Your task to perform on an android device: toggle location history Image 0: 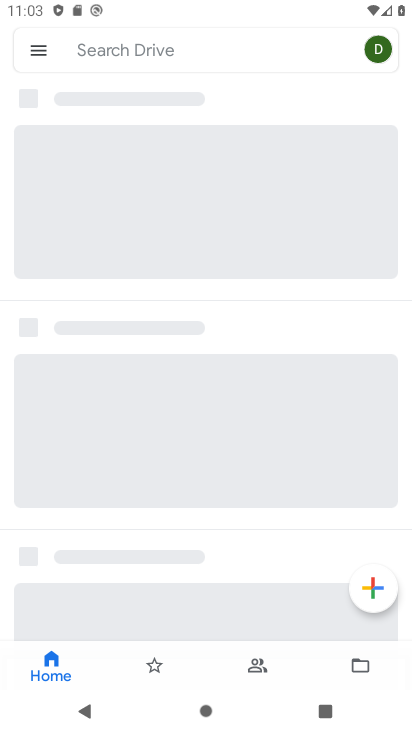
Step 0: press home button
Your task to perform on an android device: toggle location history Image 1: 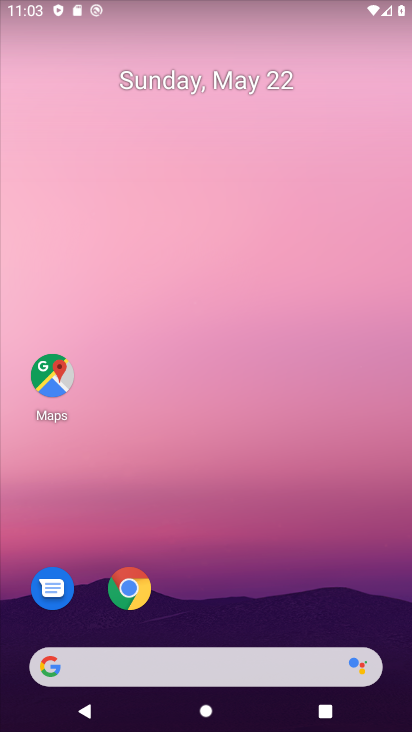
Step 1: drag from (191, 635) to (251, 210)
Your task to perform on an android device: toggle location history Image 2: 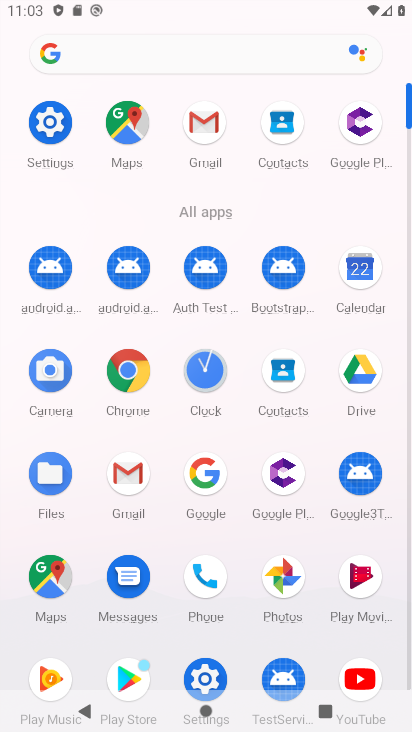
Step 2: click (40, 124)
Your task to perform on an android device: toggle location history Image 3: 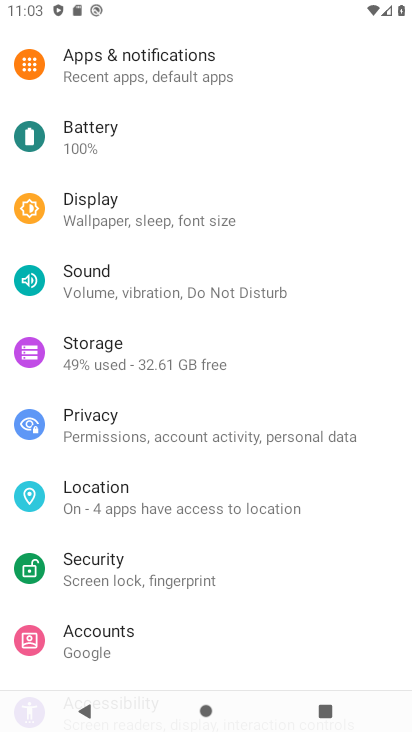
Step 3: click (150, 497)
Your task to perform on an android device: toggle location history Image 4: 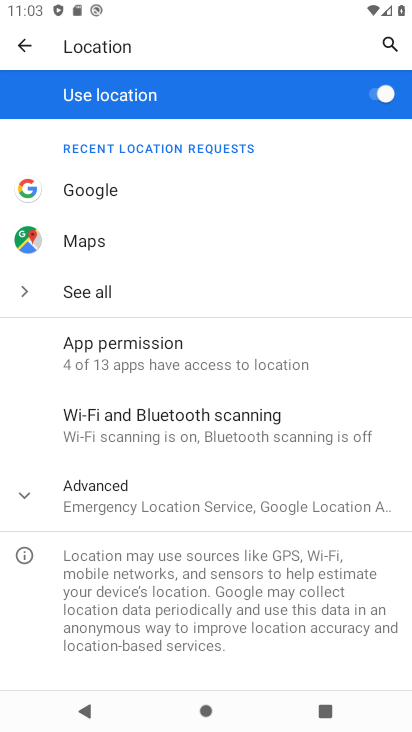
Step 4: click (135, 495)
Your task to perform on an android device: toggle location history Image 5: 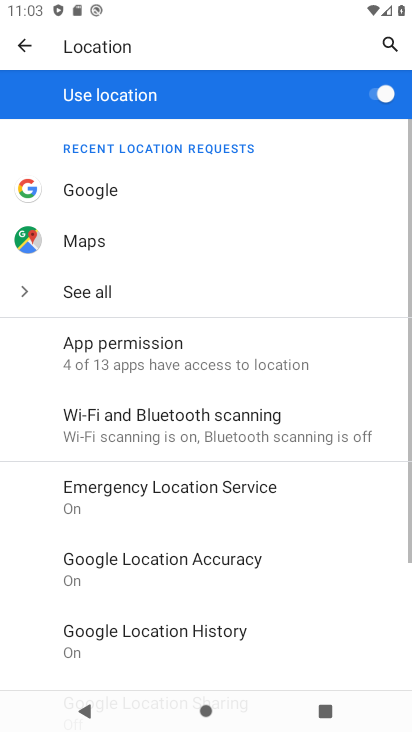
Step 5: drag from (351, 651) to (300, 301)
Your task to perform on an android device: toggle location history Image 6: 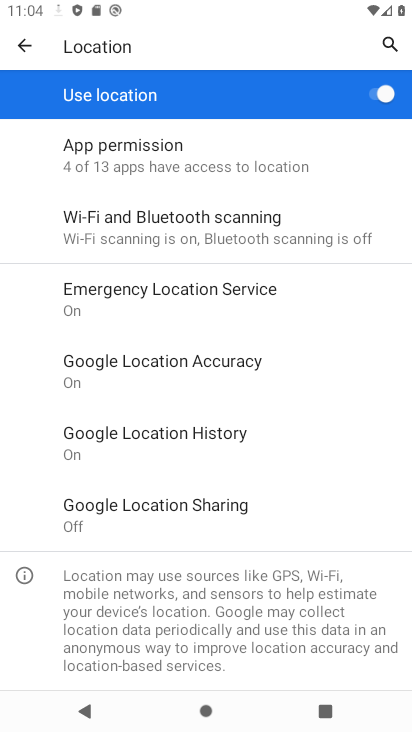
Step 6: click (217, 439)
Your task to perform on an android device: toggle location history Image 7: 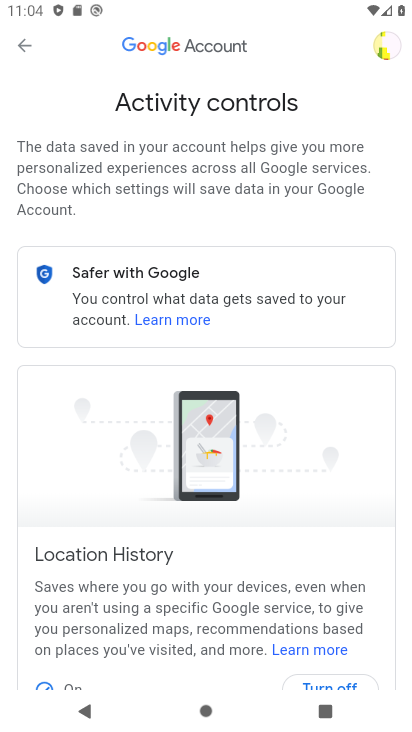
Step 7: click (348, 683)
Your task to perform on an android device: toggle location history Image 8: 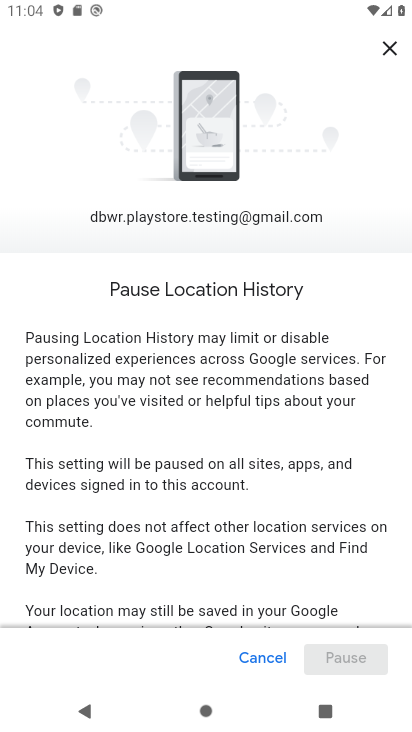
Step 8: drag from (320, 579) to (315, 153)
Your task to perform on an android device: toggle location history Image 9: 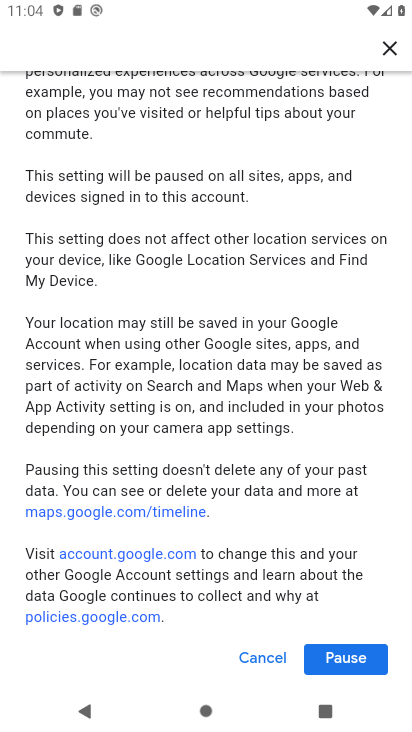
Step 9: click (345, 658)
Your task to perform on an android device: toggle location history Image 10: 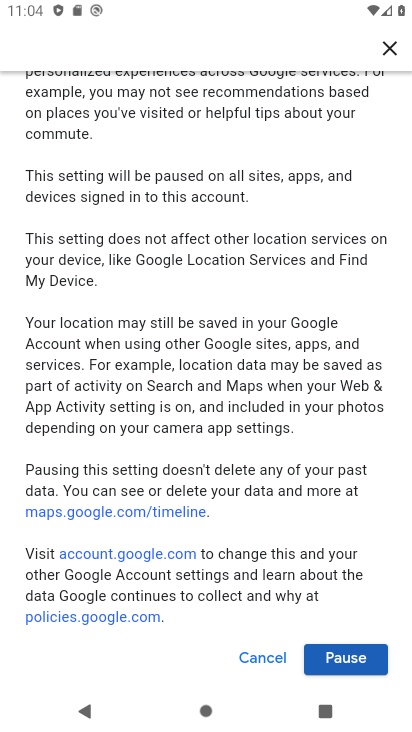
Step 10: click (345, 658)
Your task to perform on an android device: toggle location history Image 11: 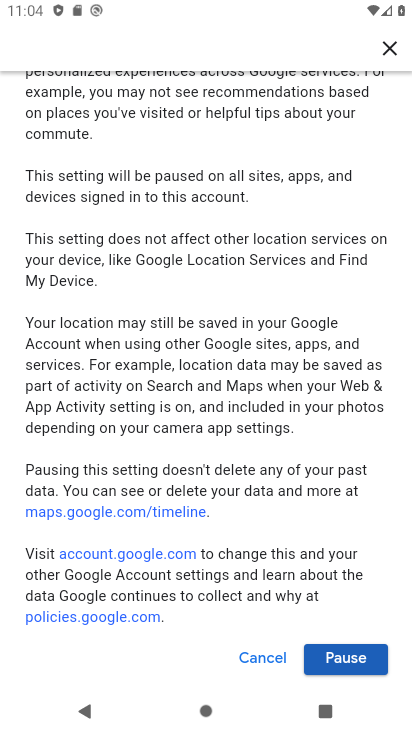
Step 11: click (372, 655)
Your task to perform on an android device: toggle location history Image 12: 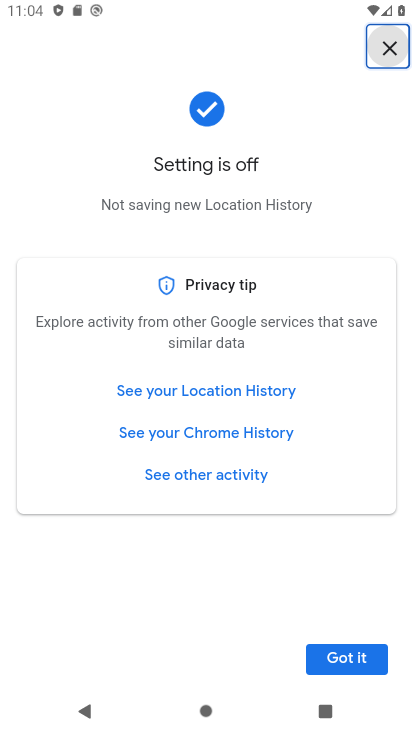
Step 12: click (343, 667)
Your task to perform on an android device: toggle location history Image 13: 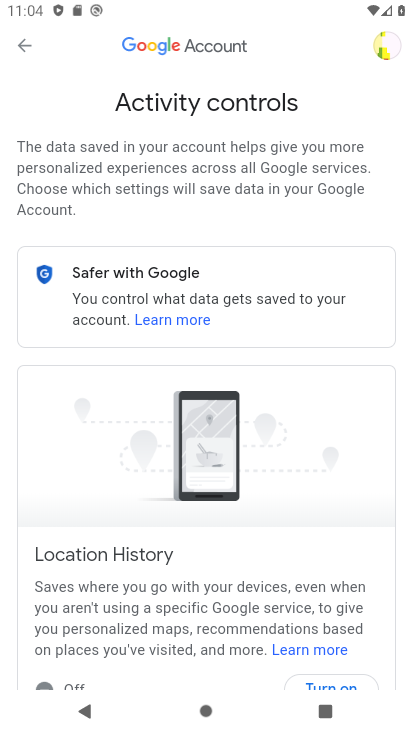
Step 13: task complete